Your task to perform on an android device: turn on wifi Image 0: 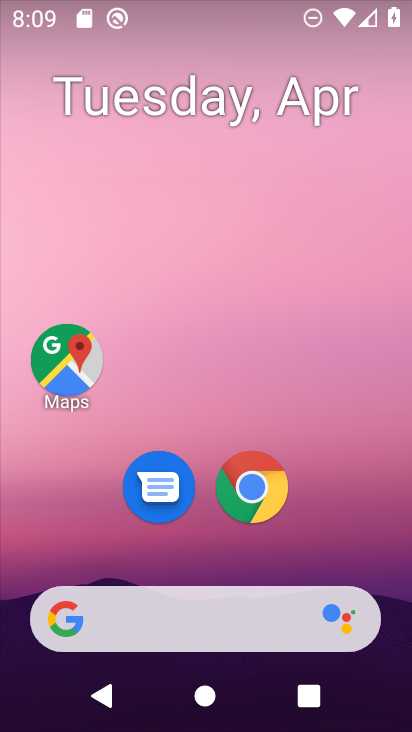
Step 0: drag from (212, 588) to (205, 268)
Your task to perform on an android device: turn on wifi Image 1: 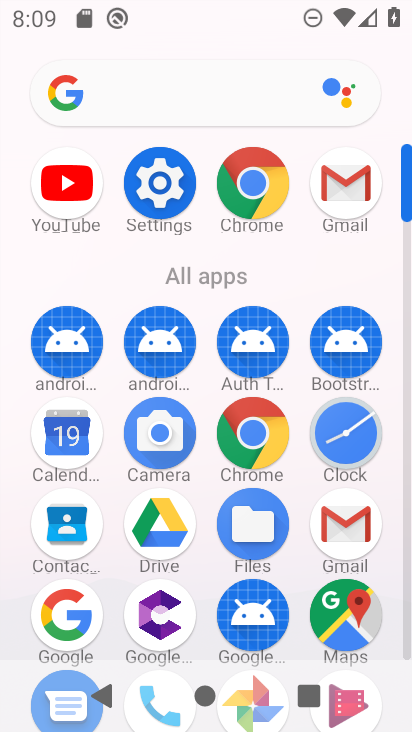
Step 1: click (161, 192)
Your task to perform on an android device: turn on wifi Image 2: 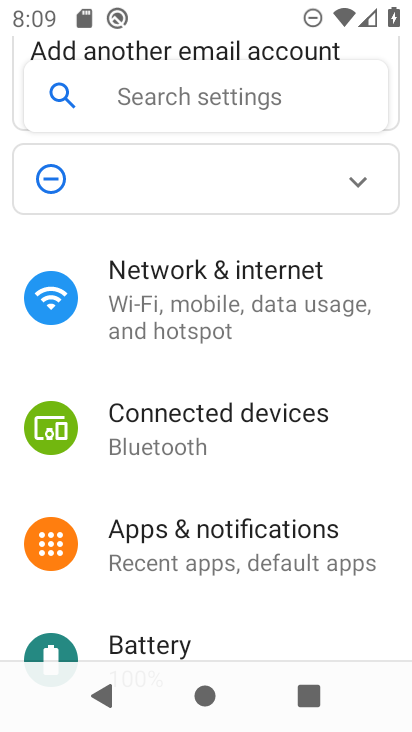
Step 2: click (185, 315)
Your task to perform on an android device: turn on wifi Image 3: 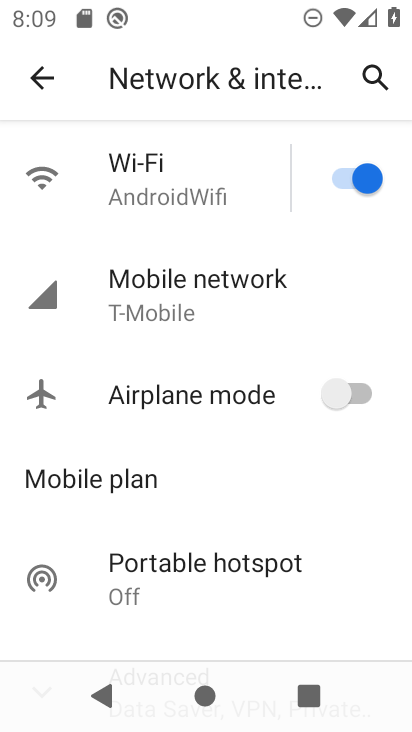
Step 3: task complete